Your task to perform on an android device: empty trash in google photos Image 0: 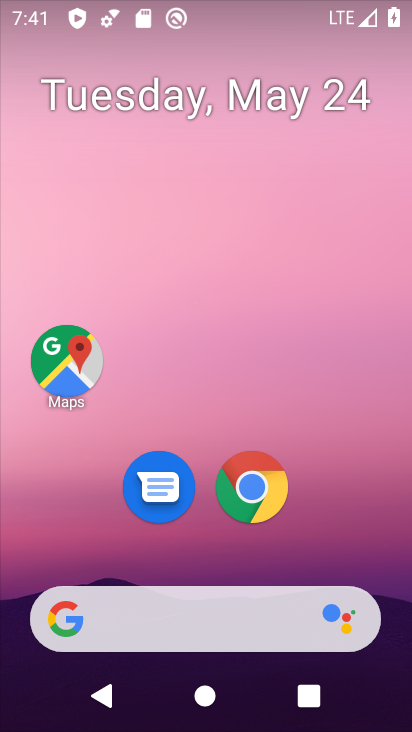
Step 0: drag from (344, 561) to (235, 192)
Your task to perform on an android device: empty trash in google photos Image 1: 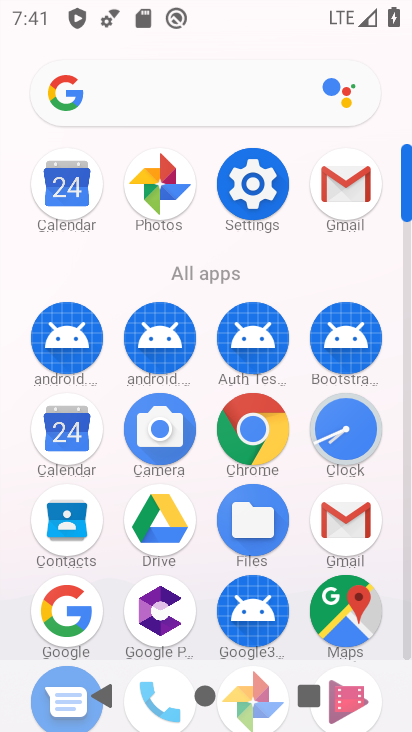
Step 1: click (161, 173)
Your task to perform on an android device: empty trash in google photos Image 2: 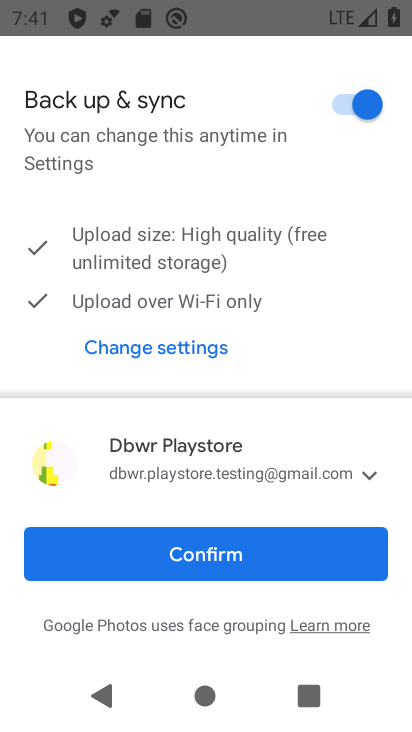
Step 2: click (296, 539)
Your task to perform on an android device: empty trash in google photos Image 3: 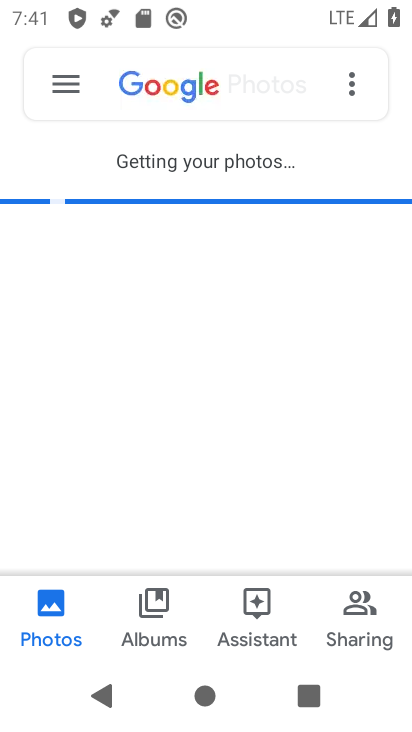
Step 3: click (68, 86)
Your task to perform on an android device: empty trash in google photos Image 4: 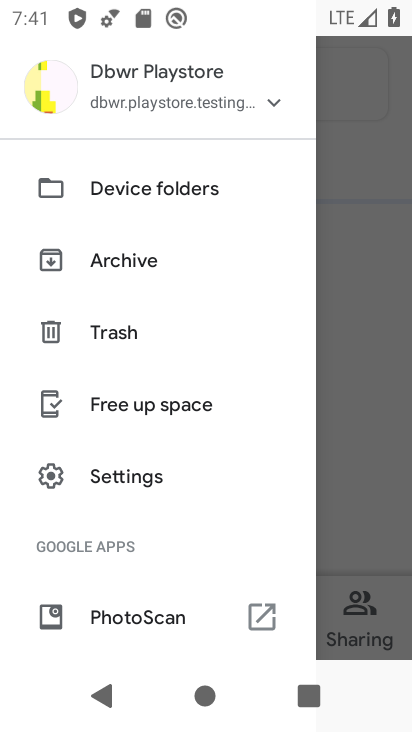
Step 4: click (115, 329)
Your task to perform on an android device: empty trash in google photos Image 5: 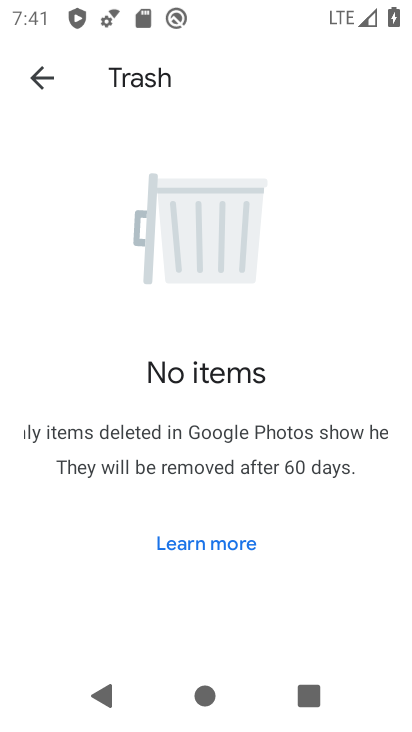
Step 5: task complete